Your task to perform on an android device: turn off location Image 0: 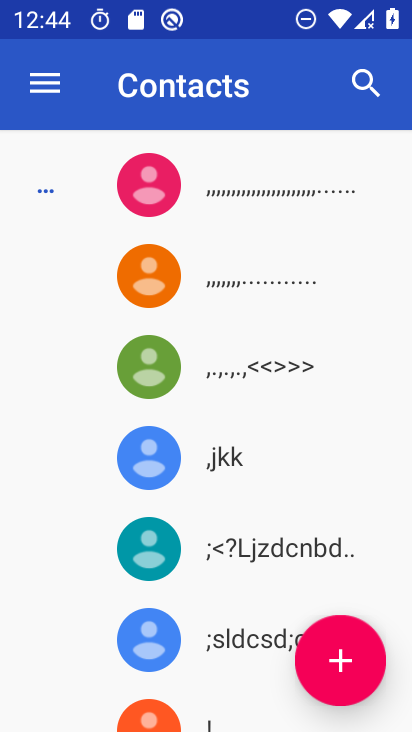
Step 0: press home button
Your task to perform on an android device: turn off location Image 1: 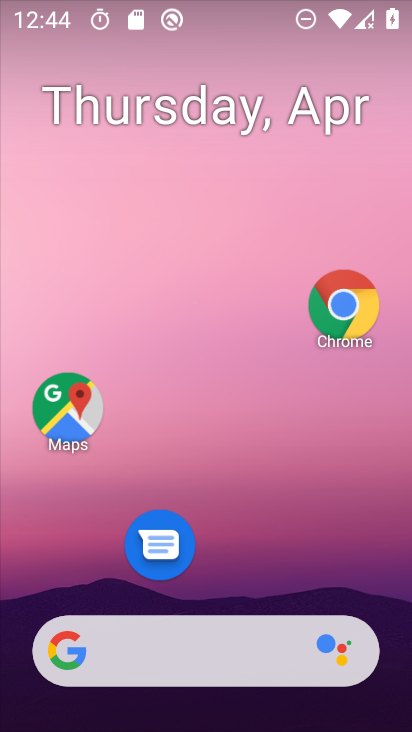
Step 1: drag from (278, 508) to (292, 147)
Your task to perform on an android device: turn off location Image 2: 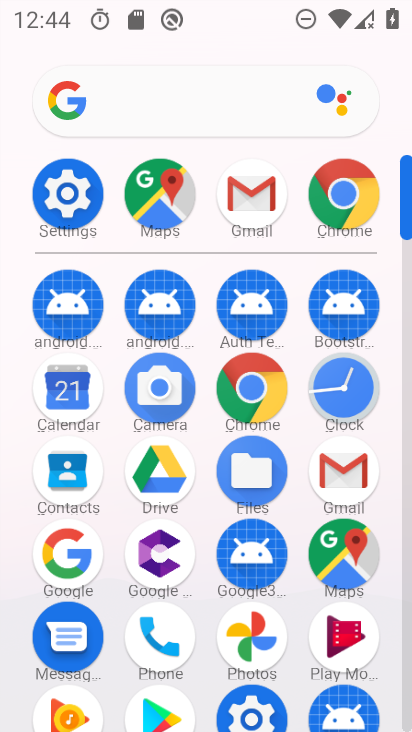
Step 2: click (77, 213)
Your task to perform on an android device: turn off location Image 3: 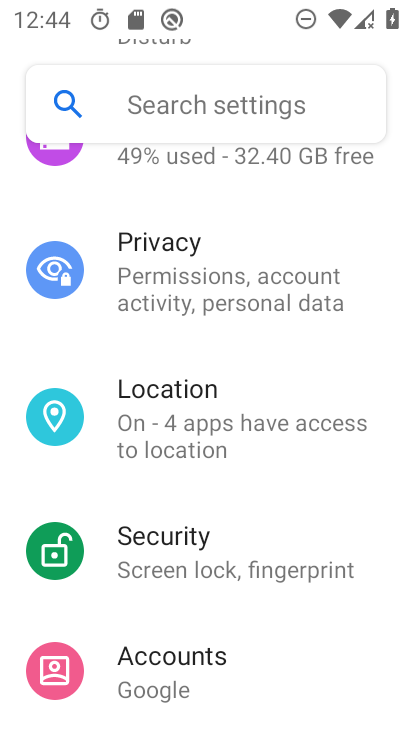
Step 3: click (162, 404)
Your task to perform on an android device: turn off location Image 4: 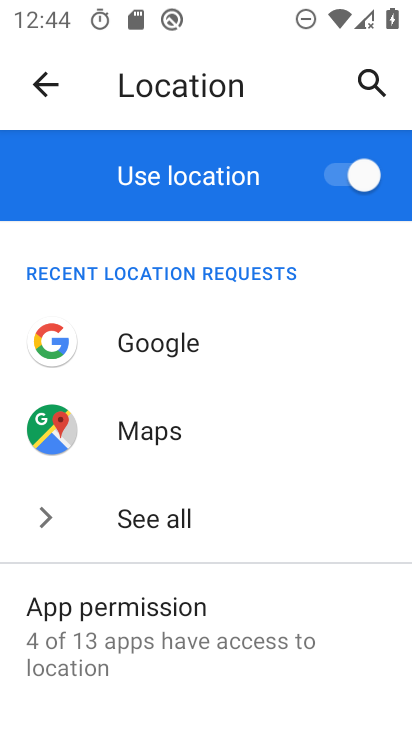
Step 4: click (336, 184)
Your task to perform on an android device: turn off location Image 5: 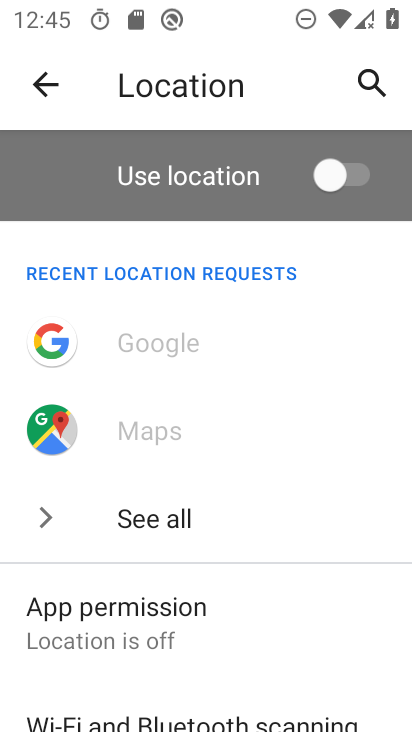
Step 5: task complete